Your task to perform on an android device: Check the weather Image 0: 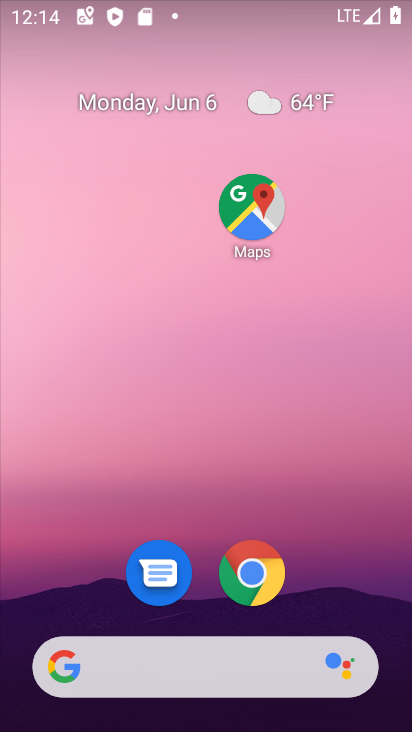
Step 0: drag from (180, 527) to (184, 107)
Your task to perform on an android device: Check the weather Image 1: 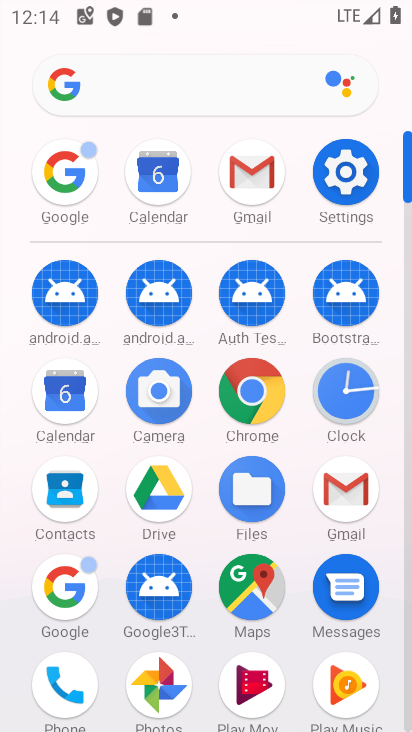
Step 1: click (85, 578)
Your task to perform on an android device: Check the weather Image 2: 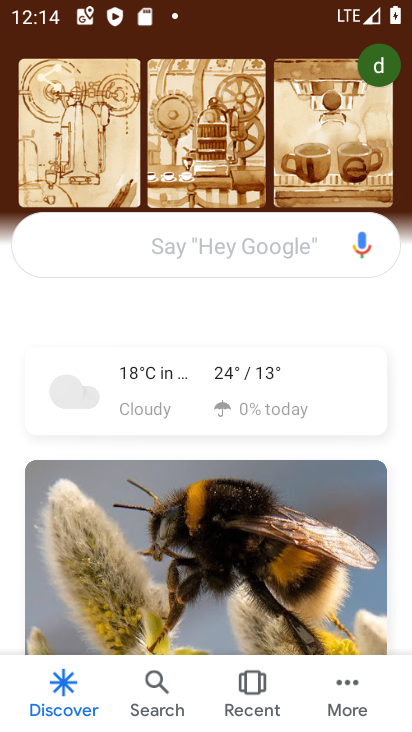
Step 2: click (193, 395)
Your task to perform on an android device: Check the weather Image 3: 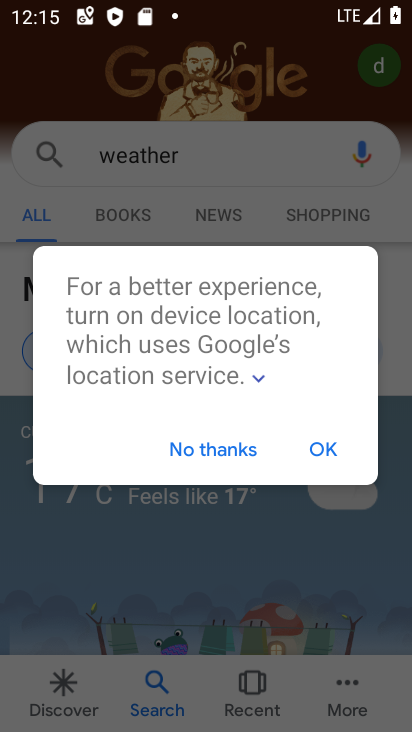
Step 3: click (244, 450)
Your task to perform on an android device: Check the weather Image 4: 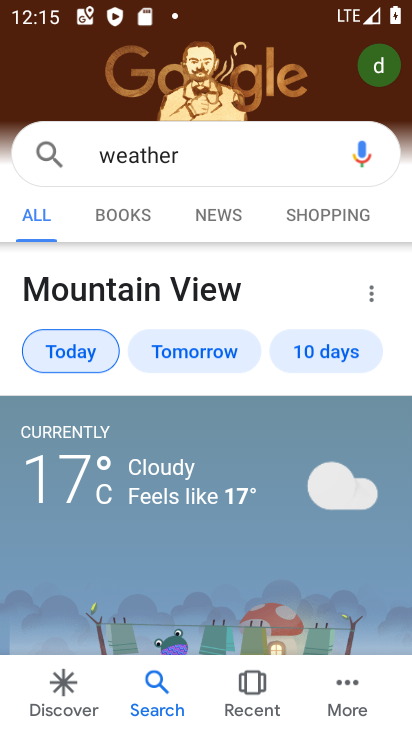
Step 4: task complete